Your task to perform on an android device: Open a new private tab in Chrome Image 0: 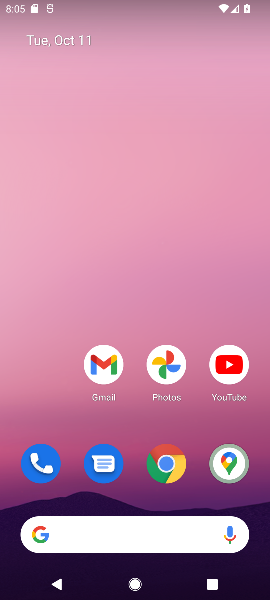
Step 0: click (163, 465)
Your task to perform on an android device: Open a new private tab in Chrome Image 1: 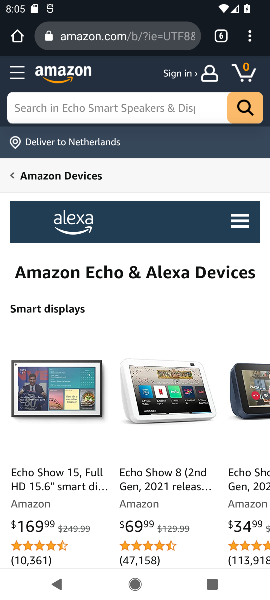
Step 1: click (253, 38)
Your task to perform on an android device: Open a new private tab in Chrome Image 2: 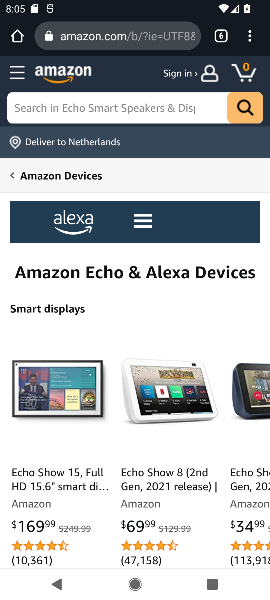
Step 2: click (250, 36)
Your task to perform on an android device: Open a new private tab in Chrome Image 3: 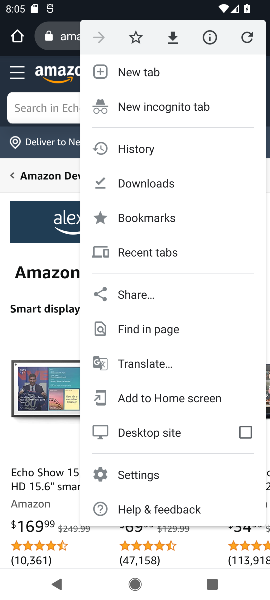
Step 3: click (109, 69)
Your task to perform on an android device: Open a new private tab in Chrome Image 4: 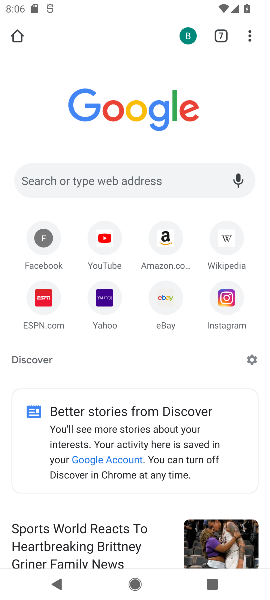
Step 4: task complete